Your task to perform on an android device: Open network settings Image 0: 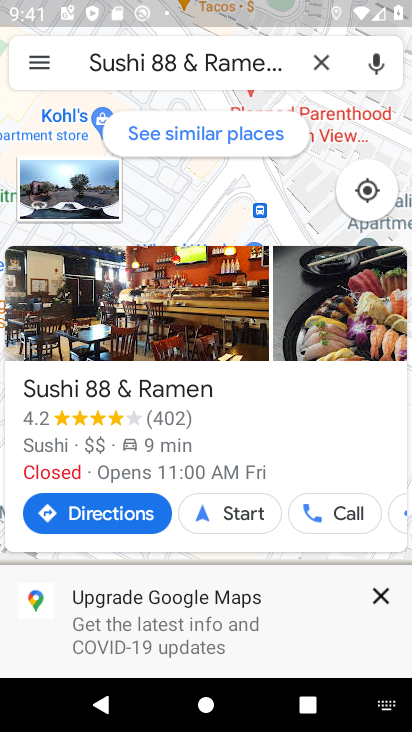
Step 0: press home button
Your task to perform on an android device: Open network settings Image 1: 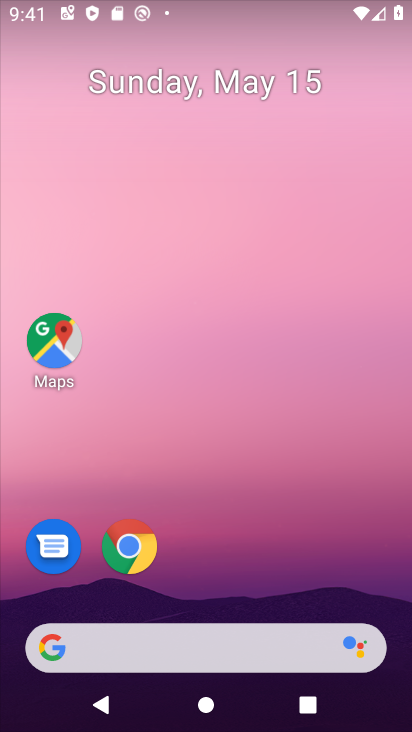
Step 1: drag from (232, 577) to (205, 32)
Your task to perform on an android device: Open network settings Image 2: 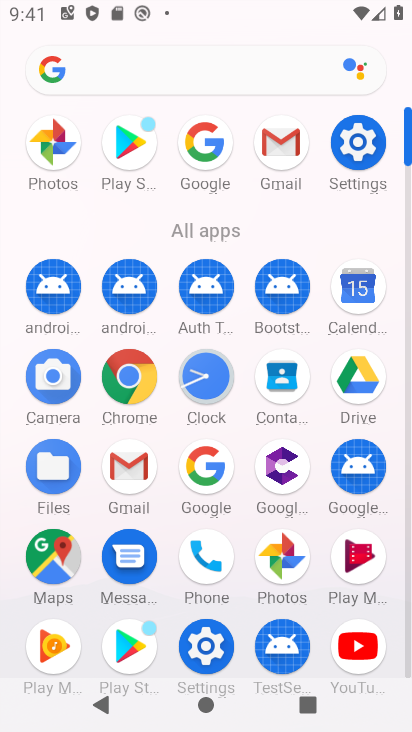
Step 2: click (361, 155)
Your task to perform on an android device: Open network settings Image 3: 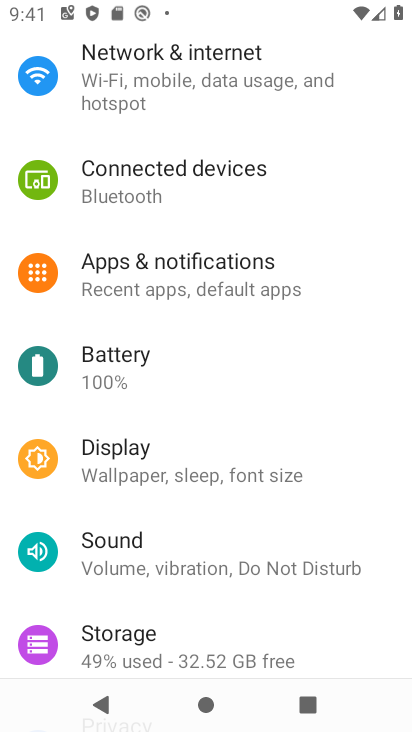
Step 3: click (218, 80)
Your task to perform on an android device: Open network settings Image 4: 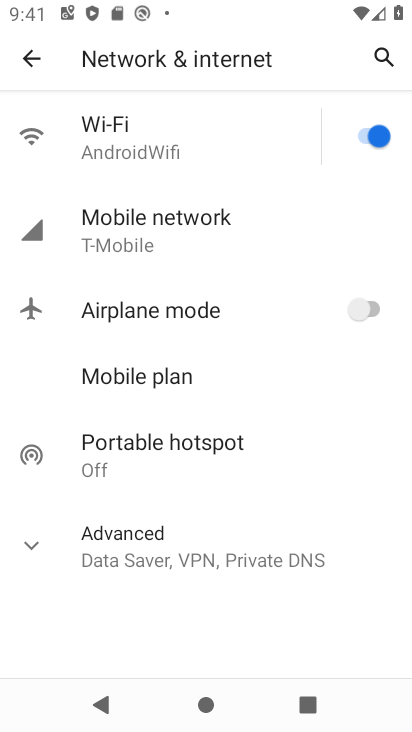
Step 4: task complete